Your task to perform on an android device: Open Google Chrome and click the shortcut for Amazon.com Image 0: 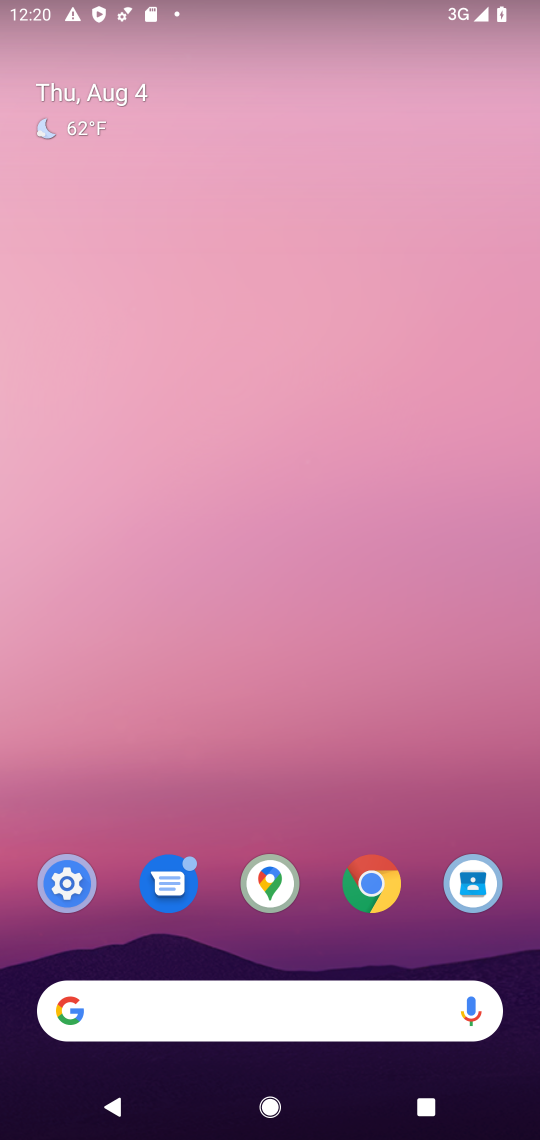
Step 0: click (538, 609)
Your task to perform on an android device: Open Google Chrome and click the shortcut for Amazon.com Image 1: 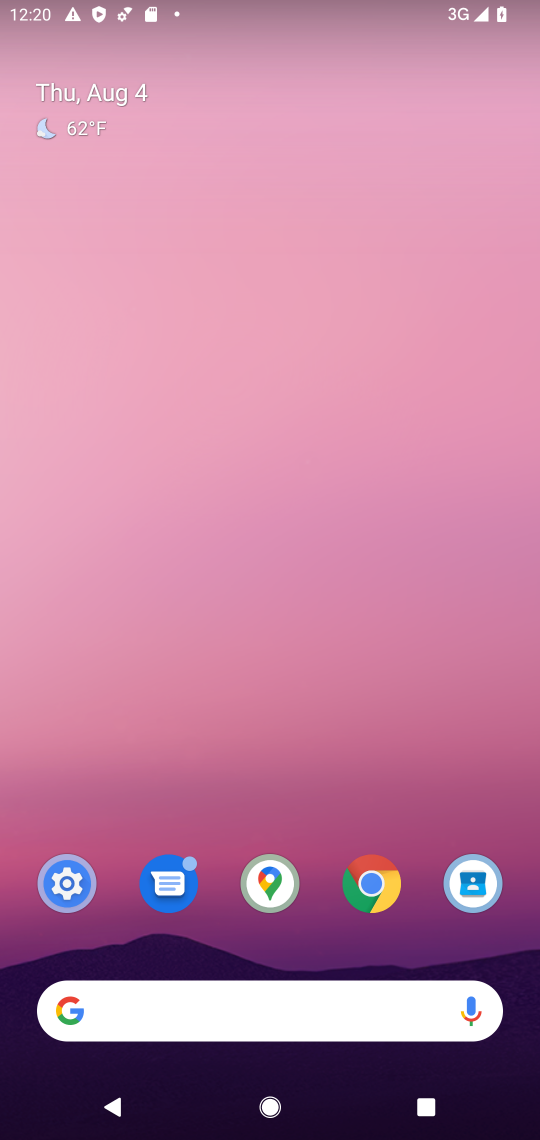
Step 1: drag from (350, 919) to (372, 227)
Your task to perform on an android device: Open Google Chrome and click the shortcut for Amazon.com Image 2: 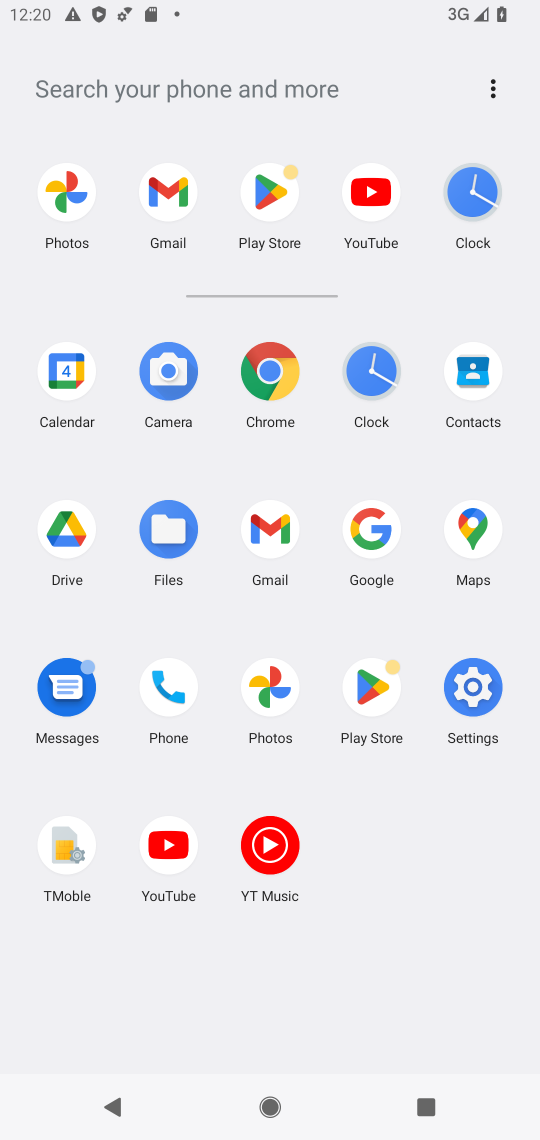
Step 2: click (276, 356)
Your task to perform on an android device: Open Google Chrome and click the shortcut for Amazon.com Image 3: 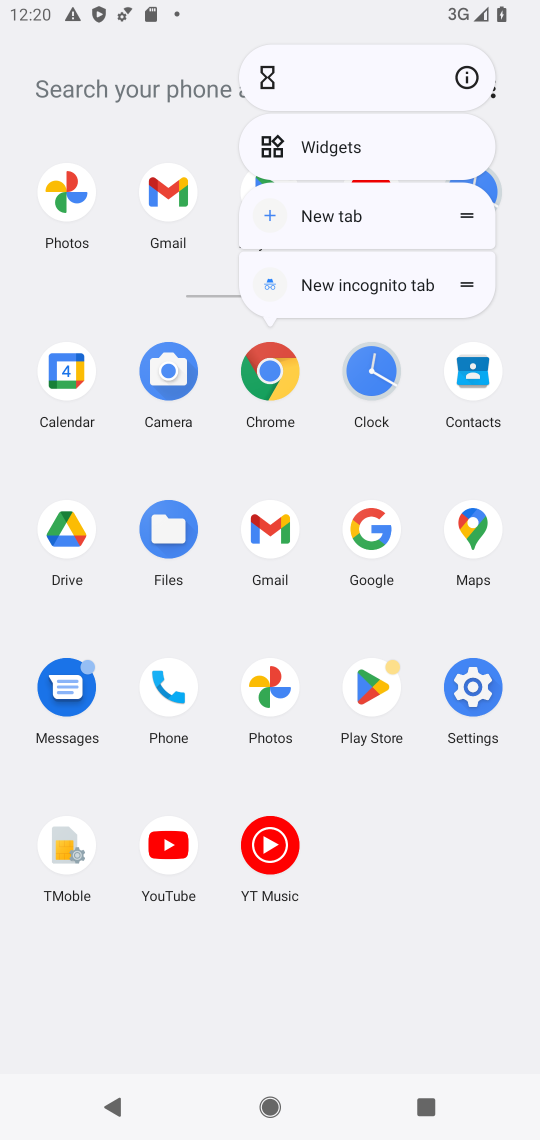
Step 3: click (468, 69)
Your task to perform on an android device: Open Google Chrome and click the shortcut for Amazon.com Image 4: 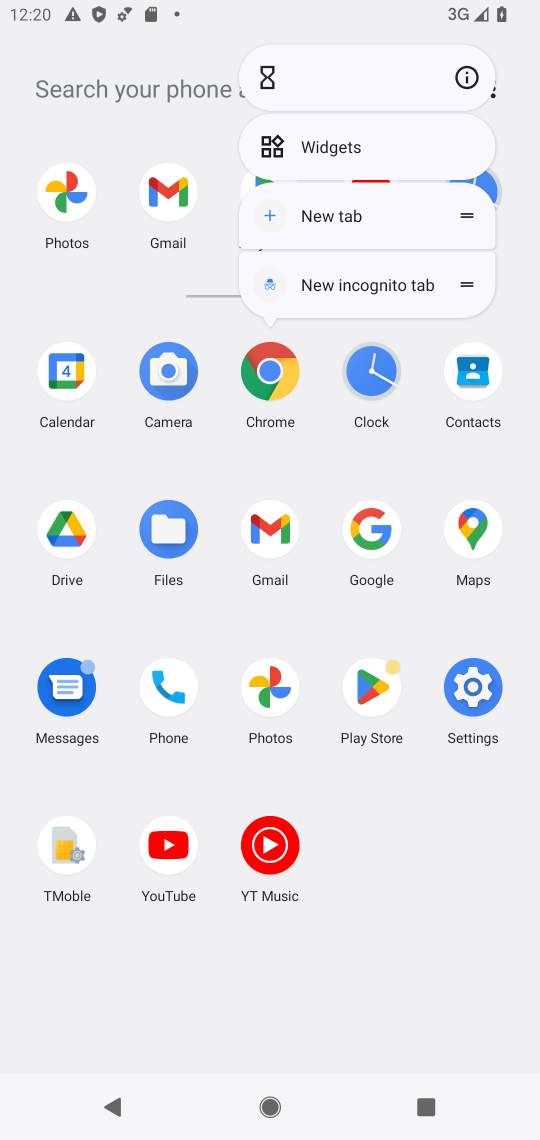
Step 4: click (469, 66)
Your task to perform on an android device: Open Google Chrome and click the shortcut for Amazon.com Image 5: 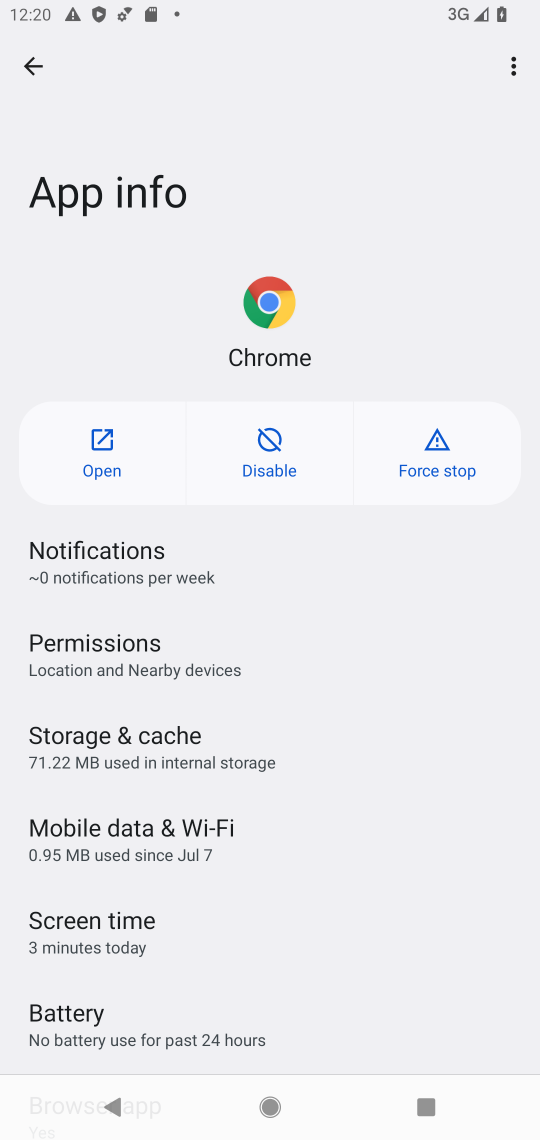
Step 5: click (73, 462)
Your task to perform on an android device: Open Google Chrome and click the shortcut for Amazon.com Image 6: 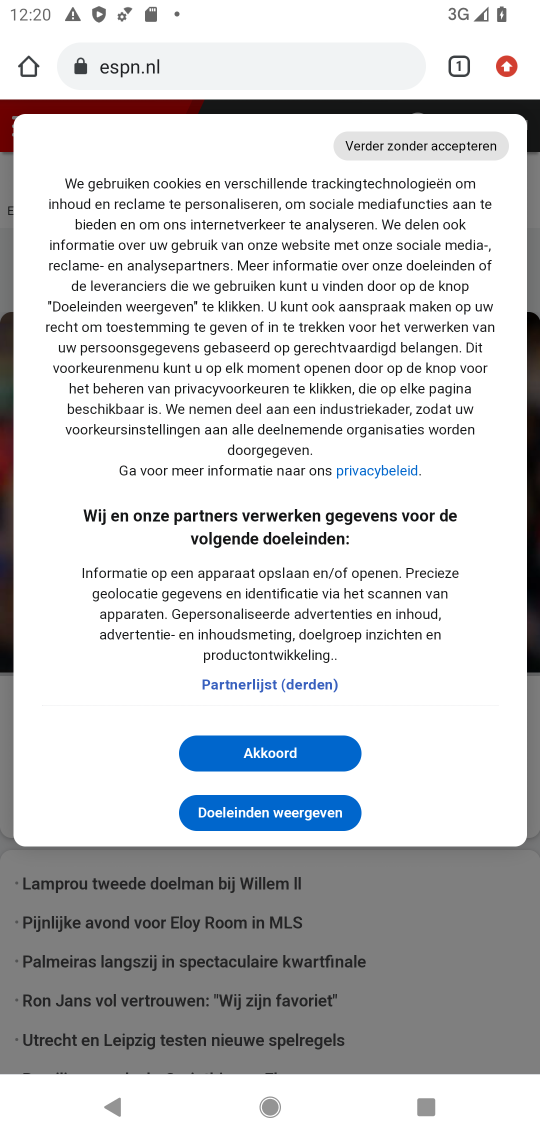
Step 6: click (463, 73)
Your task to perform on an android device: Open Google Chrome and click the shortcut for Amazon.com Image 7: 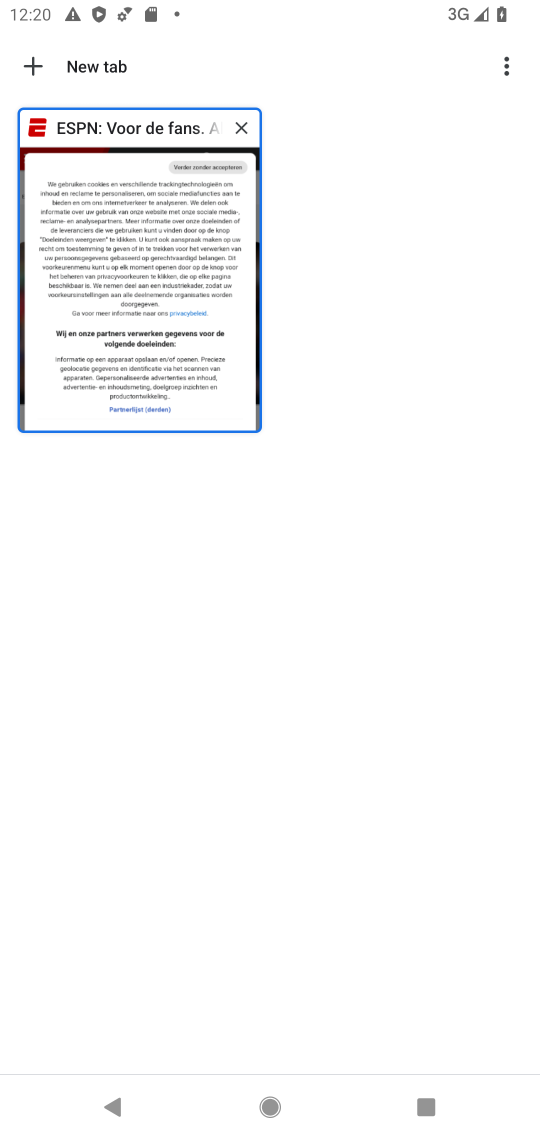
Step 7: click (30, 62)
Your task to perform on an android device: Open Google Chrome and click the shortcut for Amazon.com Image 8: 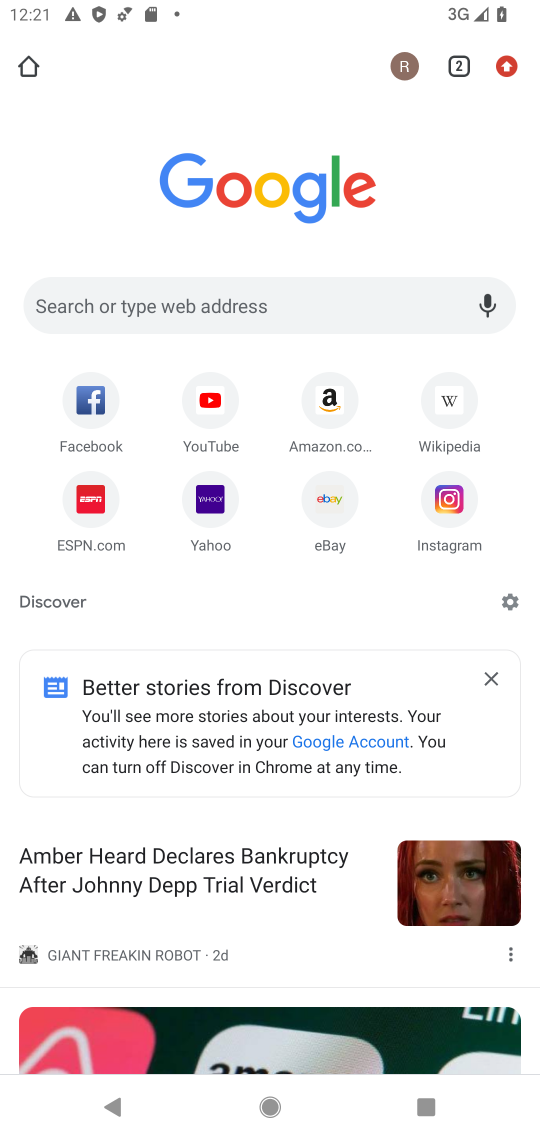
Step 8: click (321, 393)
Your task to perform on an android device: Open Google Chrome and click the shortcut for Amazon.com Image 9: 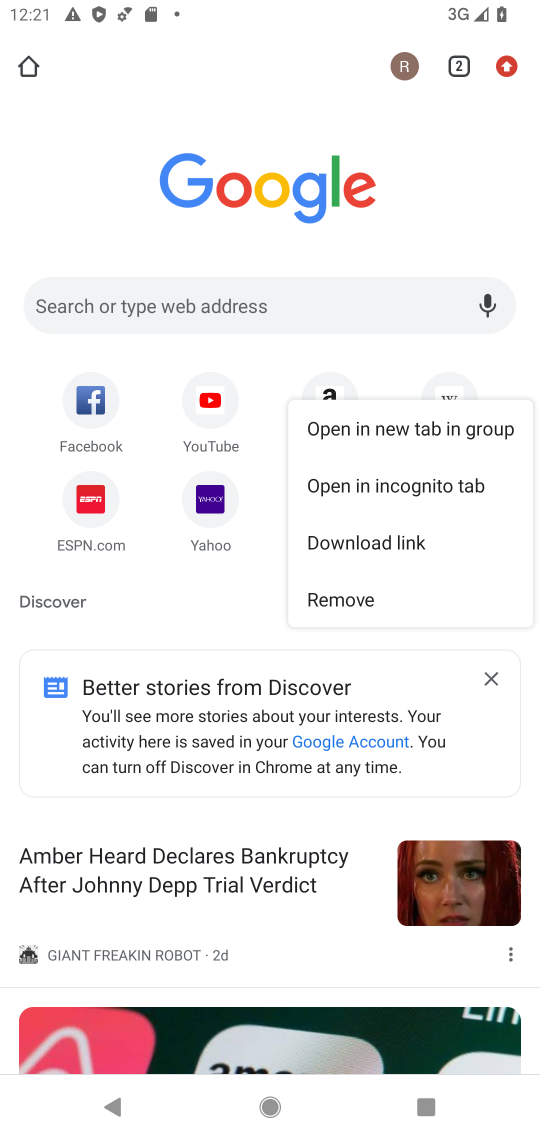
Step 9: click (272, 377)
Your task to perform on an android device: Open Google Chrome and click the shortcut for Amazon.com Image 10: 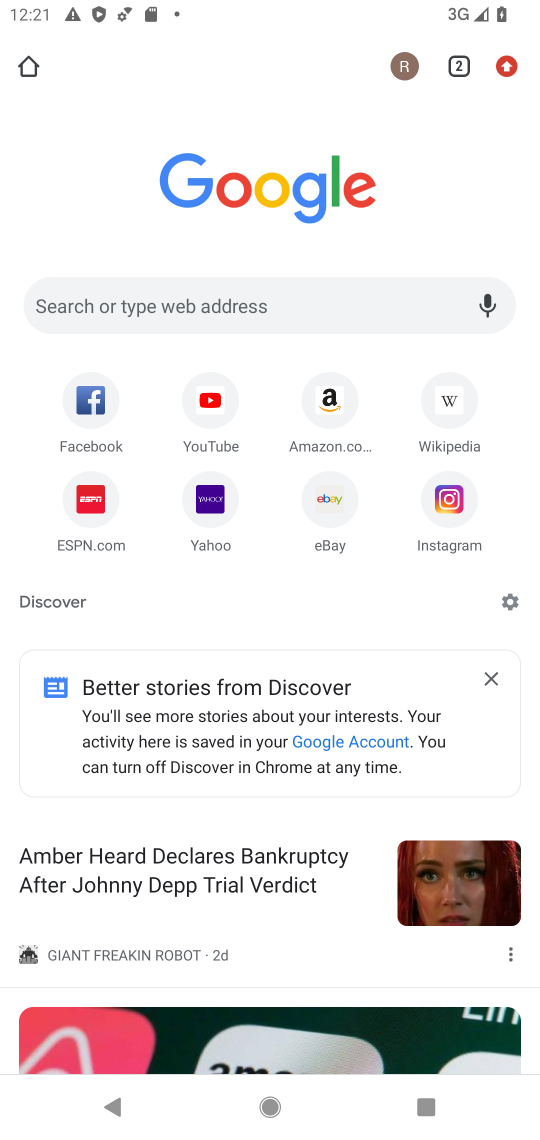
Step 10: click (330, 384)
Your task to perform on an android device: Open Google Chrome and click the shortcut for Amazon.com Image 11: 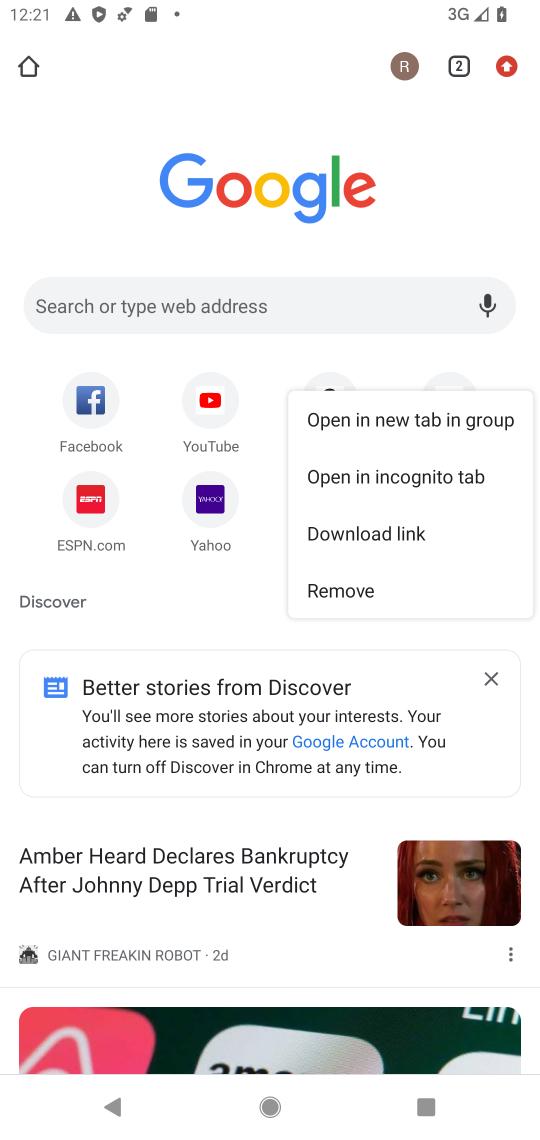
Step 11: click (335, 437)
Your task to perform on an android device: Open Google Chrome and click the shortcut for Amazon.com Image 12: 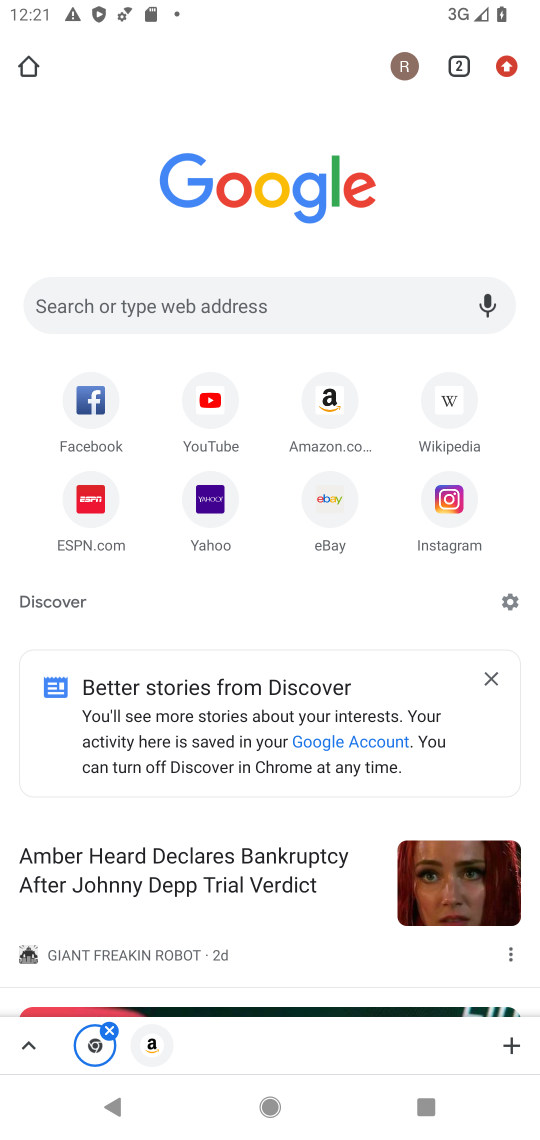
Step 12: click (331, 406)
Your task to perform on an android device: Open Google Chrome and click the shortcut for Amazon.com Image 13: 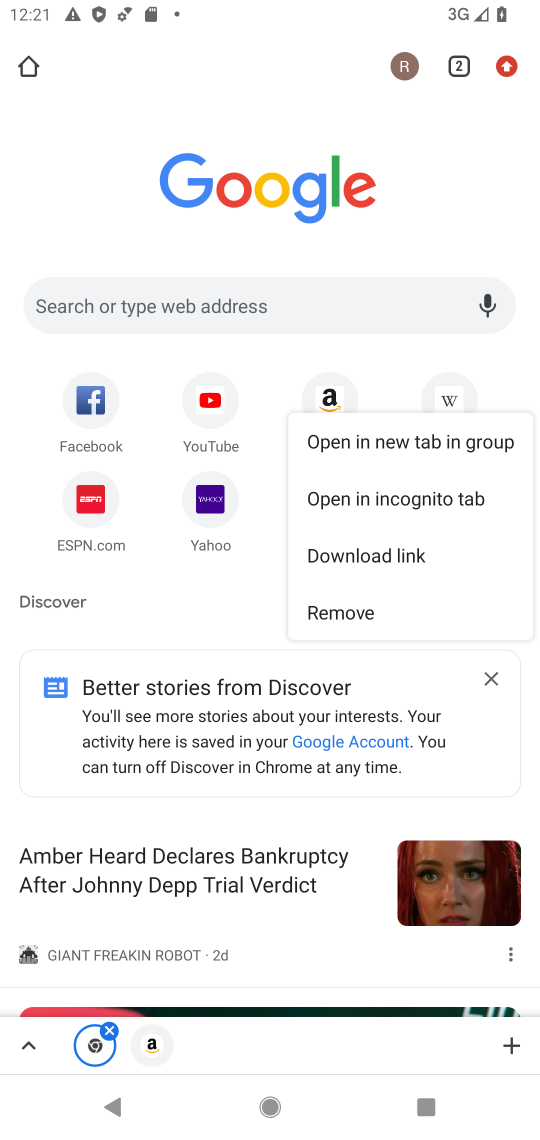
Step 13: click (152, 1028)
Your task to perform on an android device: Open Google Chrome and click the shortcut for Amazon.com Image 14: 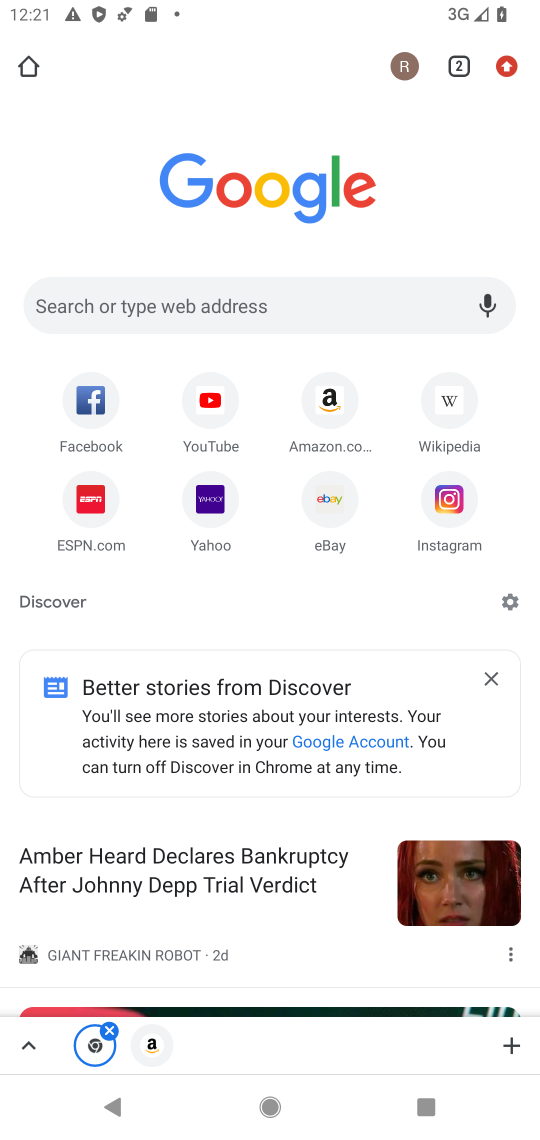
Step 14: click (156, 1044)
Your task to perform on an android device: Open Google Chrome and click the shortcut for Amazon.com Image 15: 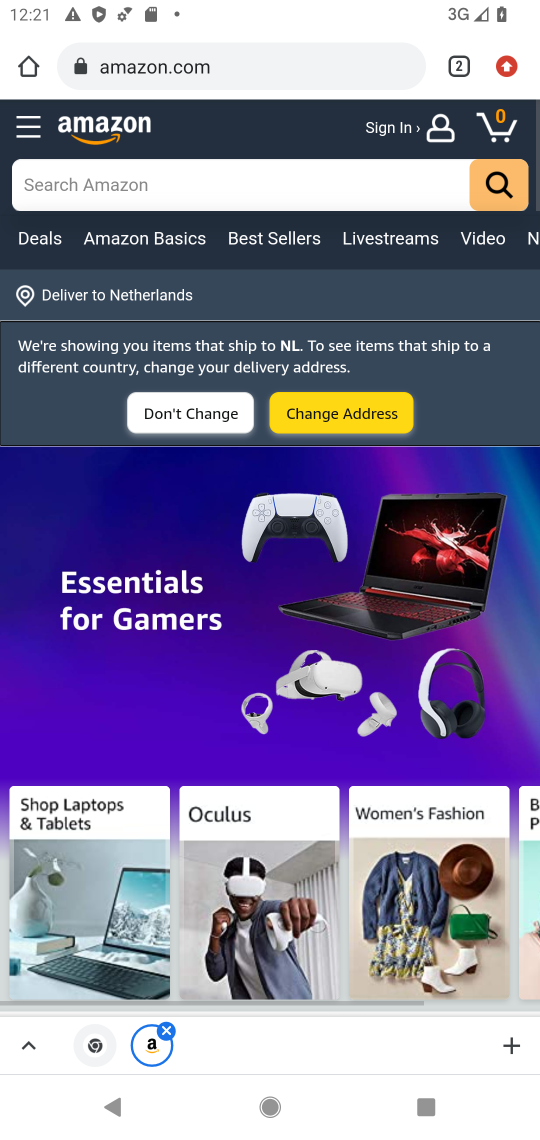
Step 15: task complete